Your task to perform on an android device: Open wifi settings Image 0: 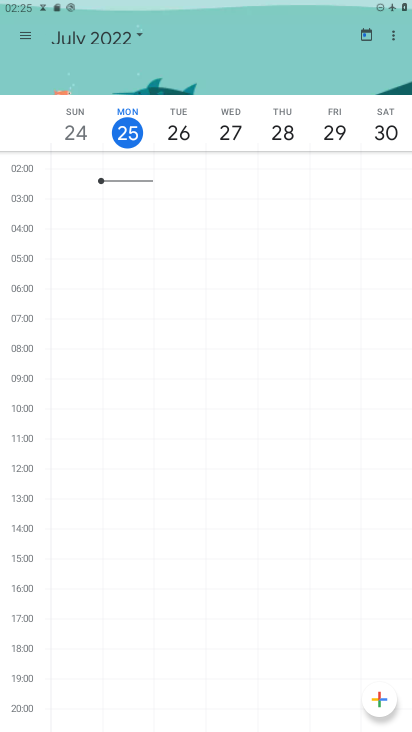
Step 0: press home button
Your task to perform on an android device: Open wifi settings Image 1: 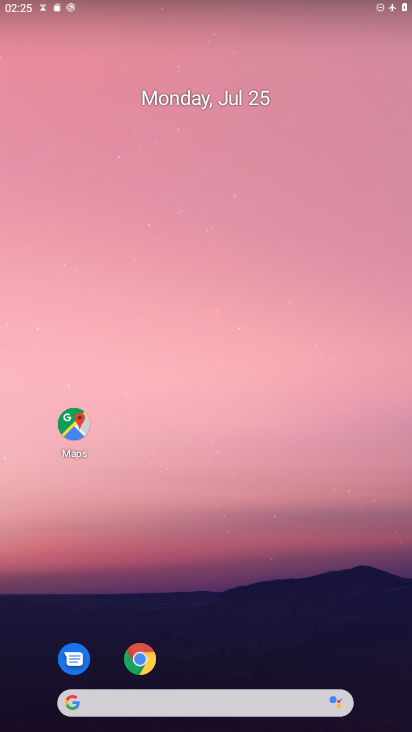
Step 1: drag from (228, 664) to (301, 239)
Your task to perform on an android device: Open wifi settings Image 2: 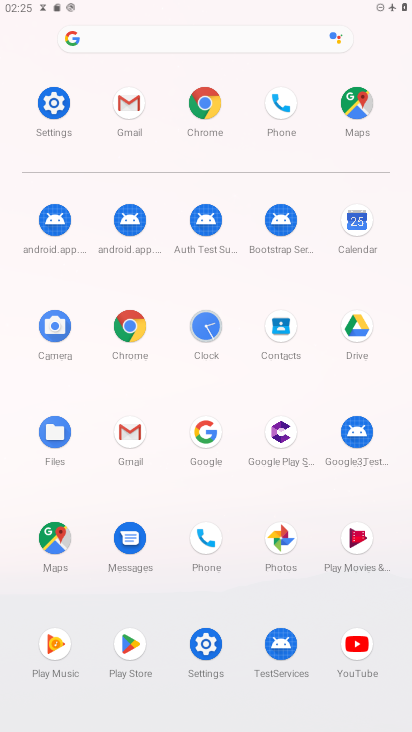
Step 2: click (45, 98)
Your task to perform on an android device: Open wifi settings Image 3: 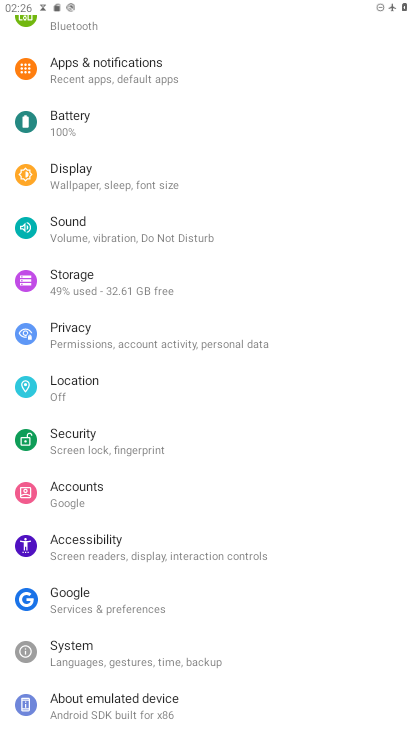
Step 3: drag from (140, 89) to (141, 475)
Your task to perform on an android device: Open wifi settings Image 4: 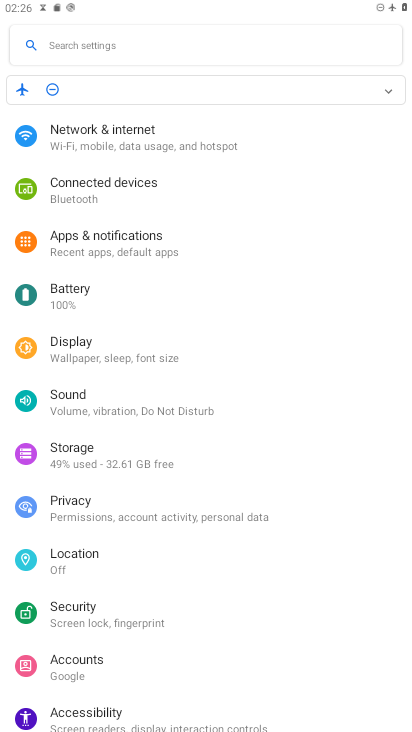
Step 4: click (110, 123)
Your task to perform on an android device: Open wifi settings Image 5: 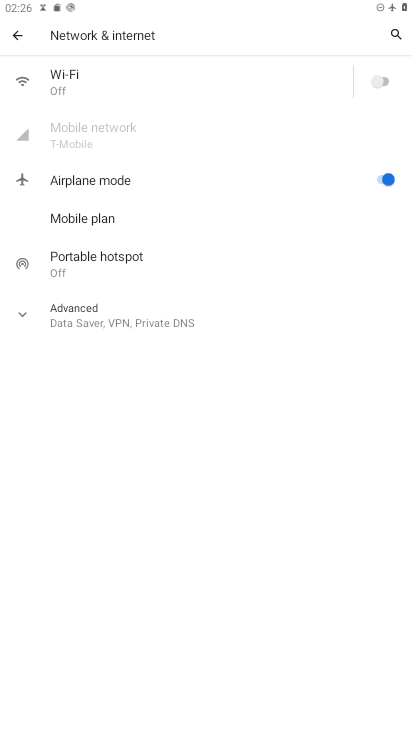
Step 5: click (148, 73)
Your task to perform on an android device: Open wifi settings Image 6: 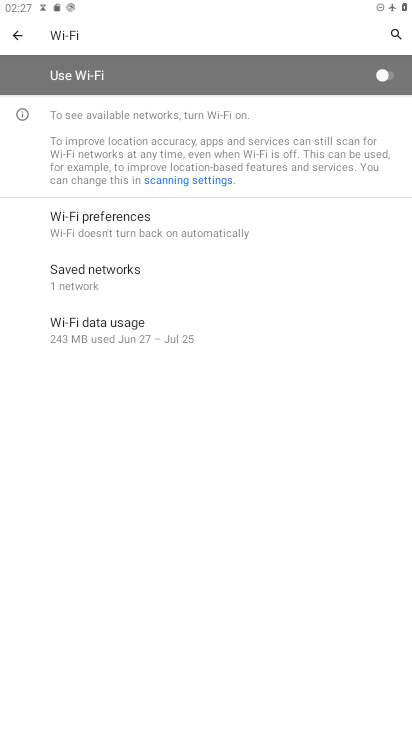
Step 6: task complete